Your task to perform on an android device: Open Android settings Image 0: 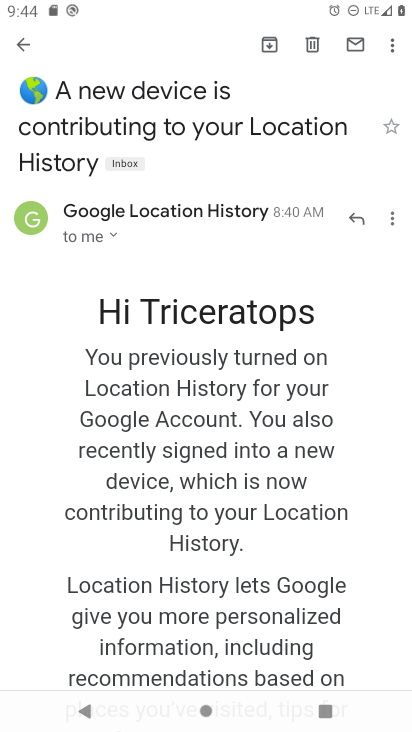
Step 0: press home button
Your task to perform on an android device: Open Android settings Image 1: 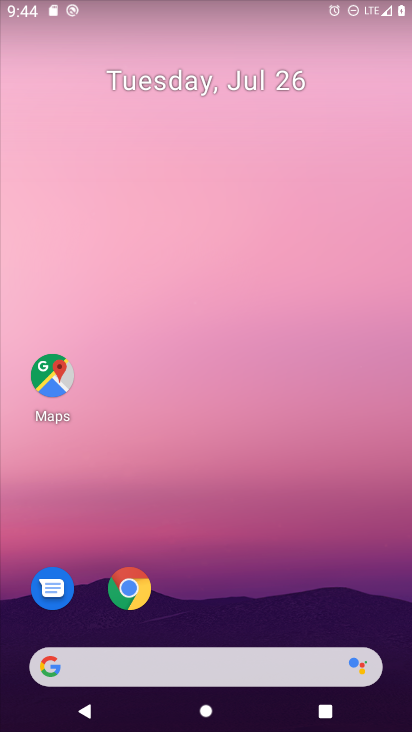
Step 1: drag from (283, 614) to (299, 0)
Your task to perform on an android device: Open Android settings Image 2: 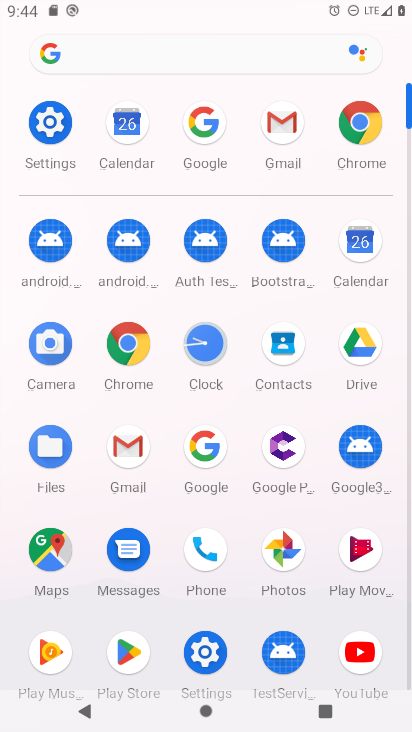
Step 2: click (89, 130)
Your task to perform on an android device: Open Android settings Image 3: 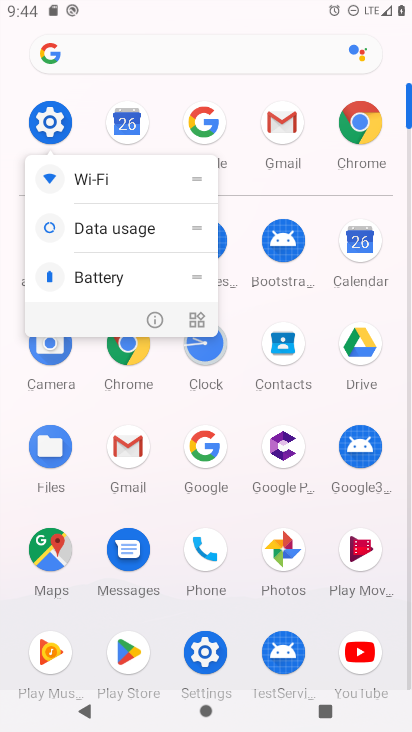
Step 3: click (74, 132)
Your task to perform on an android device: Open Android settings Image 4: 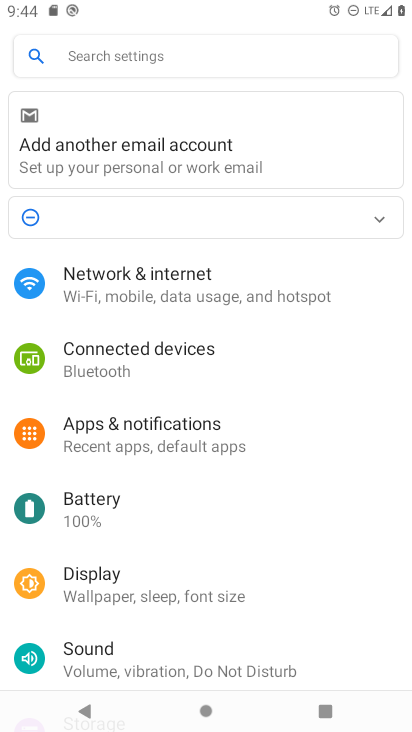
Step 4: drag from (147, 313) to (132, 139)
Your task to perform on an android device: Open Android settings Image 5: 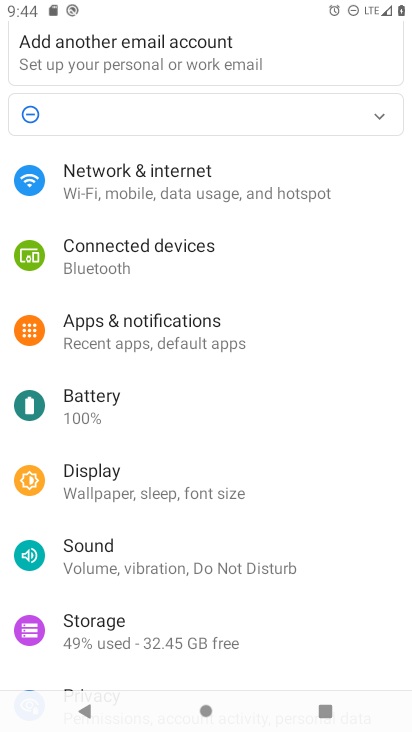
Step 5: drag from (181, 560) to (213, 47)
Your task to perform on an android device: Open Android settings Image 6: 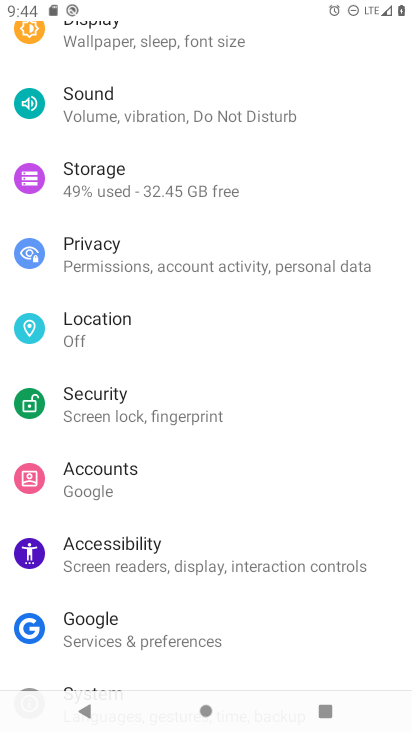
Step 6: drag from (160, 573) to (197, 27)
Your task to perform on an android device: Open Android settings Image 7: 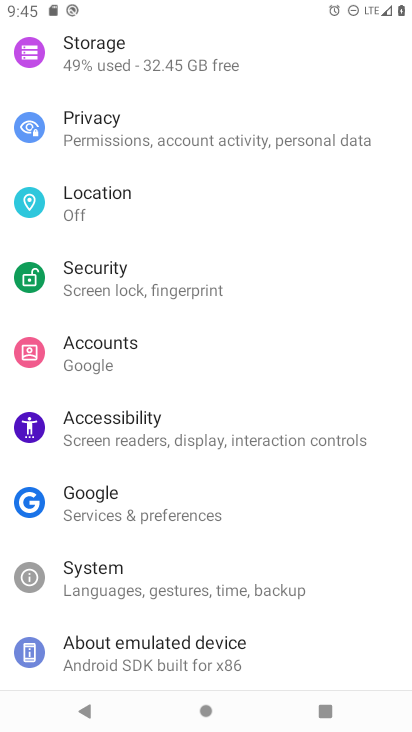
Step 7: click (157, 648)
Your task to perform on an android device: Open Android settings Image 8: 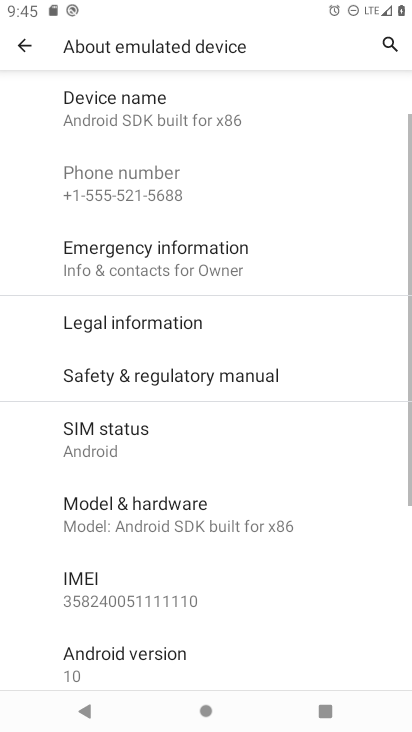
Step 8: click (160, 652)
Your task to perform on an android device: Open Android settings Image 9: 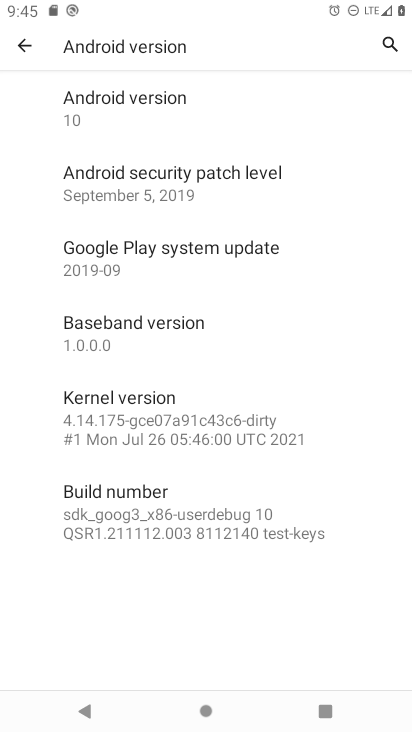
Step 9: task complete